Your task to perform on an android device: find photos in the google photos app Image 0: 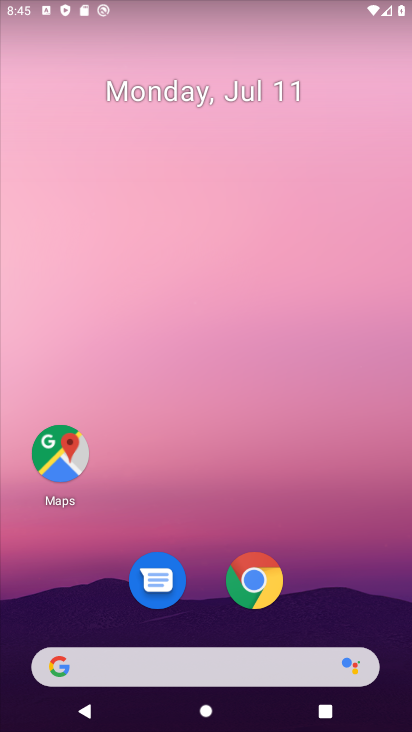
Step 0: drag from (231, 480) to (281, 67)
Your task to perform on an android device: find photos in the google photos app Image 1: 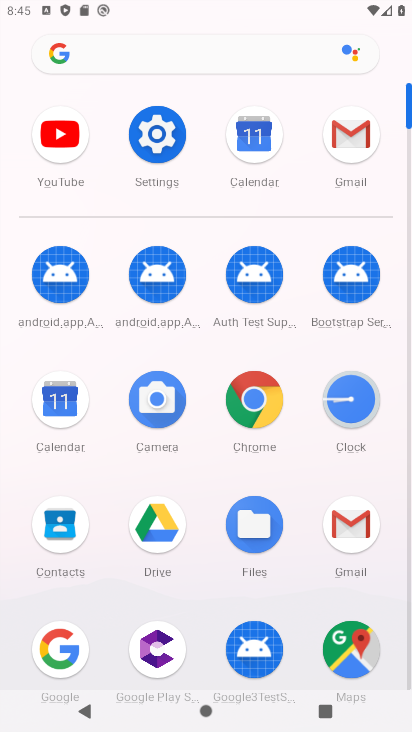
Step 1: drag from (196, 471) to (236, 129)
Your task to perform on an android device: find photos in the google photos app Image 2: 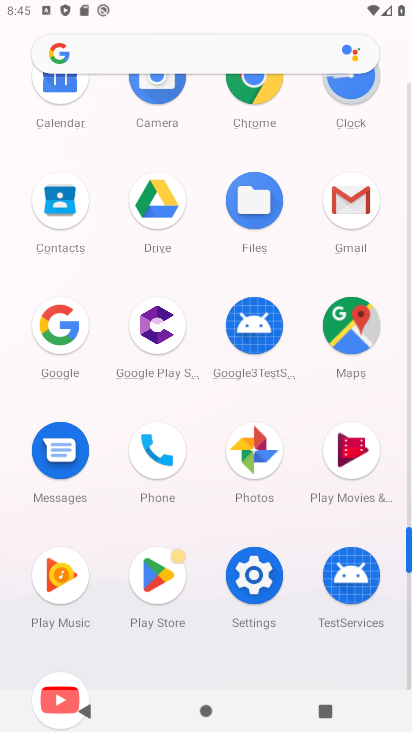
Step 2: click (255, 446)
Your task to perform on an android device: find photos in the google photos app Image 3: 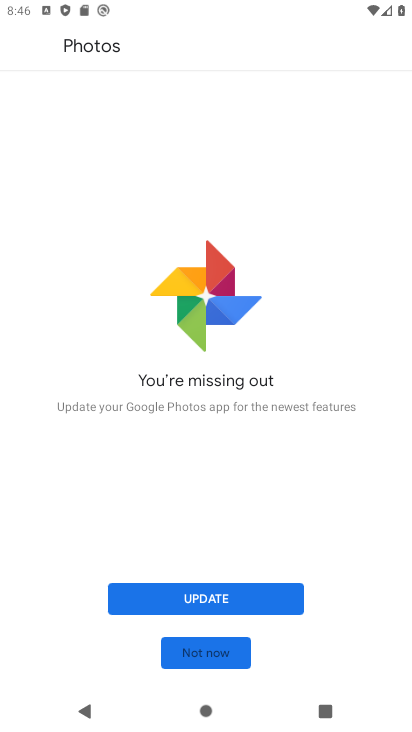
Step 3: click (232, 602)
Your task to perform on an android device: find photos in the google photos app Image 4: 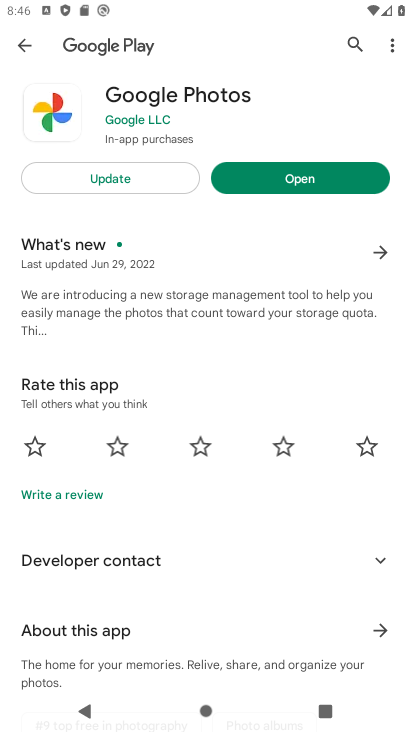
Step 4: click (340, 177)
Your task to perform on an android device: find photos in the google photos app Image 5: 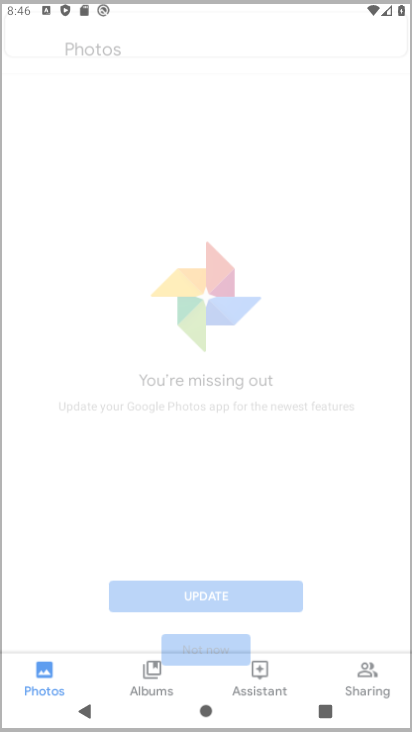
Step 5: click (340, 178)
Your task to perform on an android device: find photos in the google photos app Image 6: 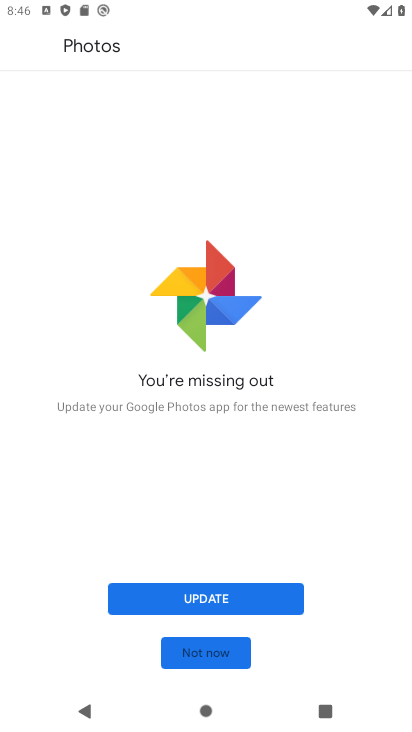
Step 6: click (275, 595)
Your task to perform on an android device: find photos in the google photos app Image 7: 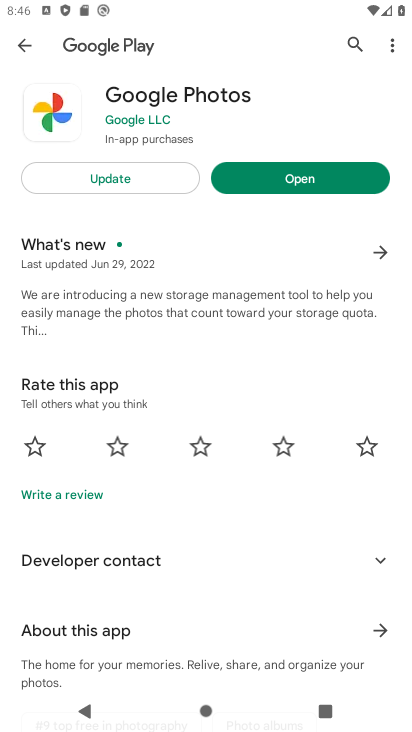
Step 7: click (160, 179)
Your task to perform on an android device: find photos in the google photos app Image 8: 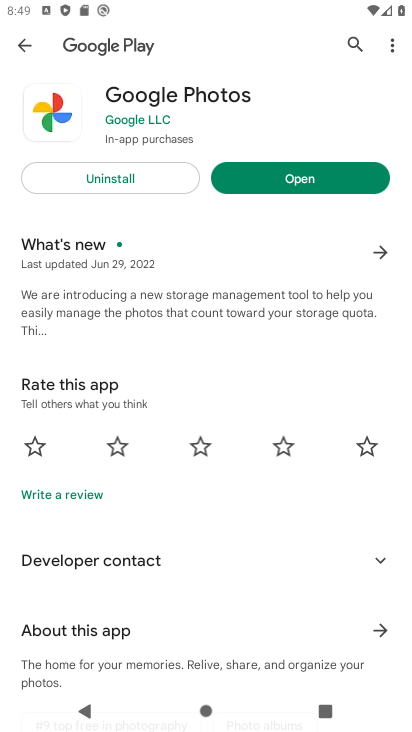
Step 8: click (347, 185)
Your task to perform on an android device: find photos in the google photos app Image 9: 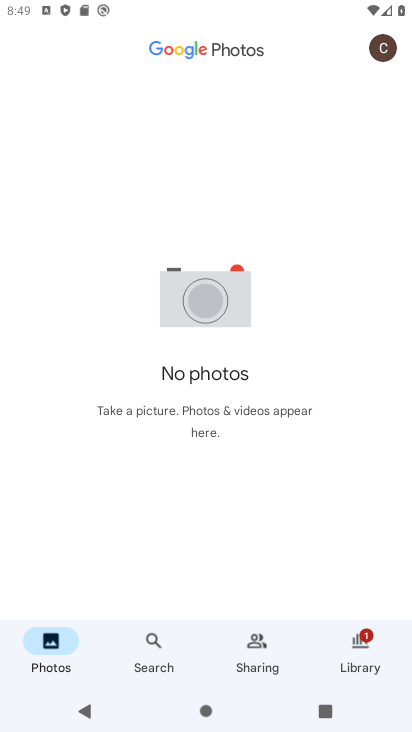
Step 9: task complete